Your task to perform on an android device: allow cookies in the chrome app Image 0: 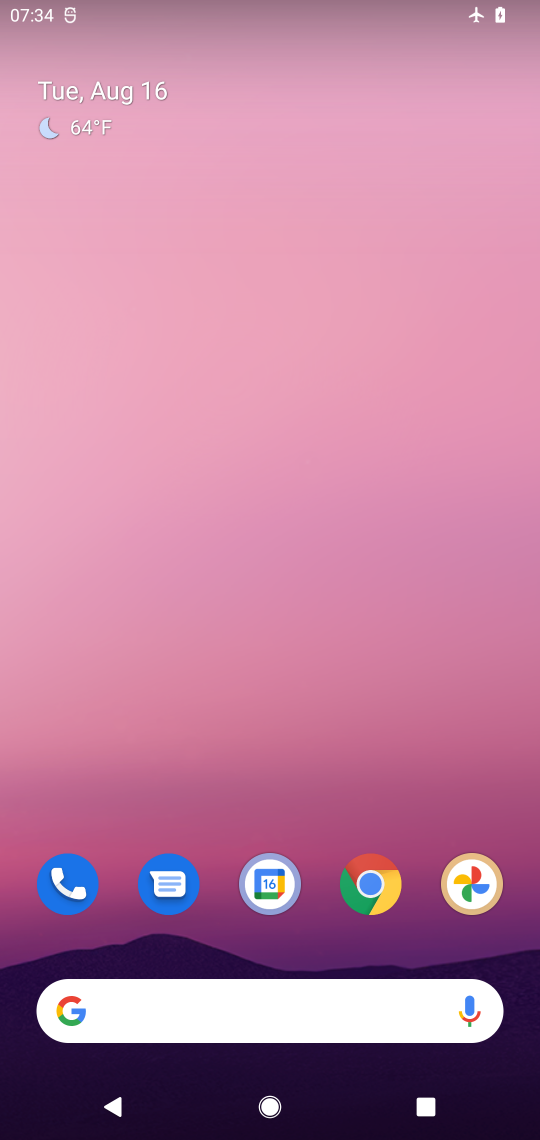
Step 0: click (379, 873)
Your task to perform on an android device: allow cookies in the chrome app Image 1: 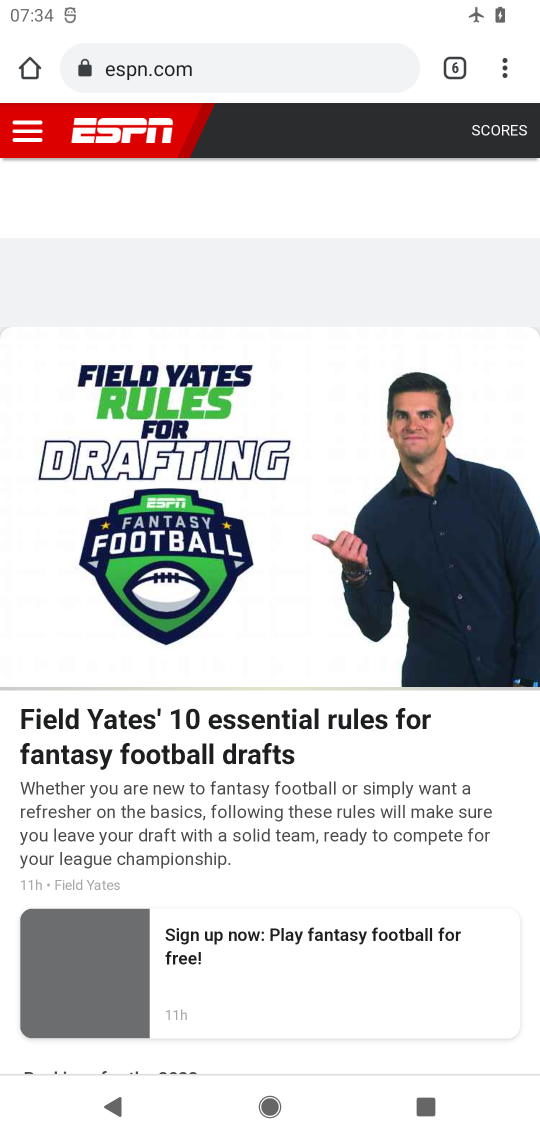
Step 1: drag from (500, 56) to (358, 775)
Your task to perform on an android device: allow cookies in the chrome app Image 2: 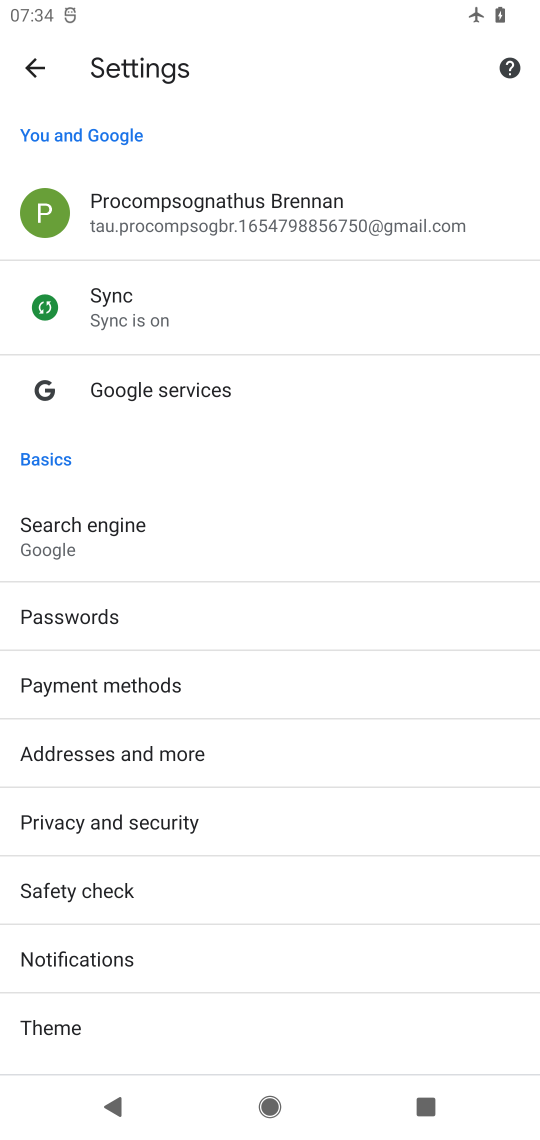
Step 2: drag from (161, 1021) to (214, 267)
Your task to perform on an android device: allow cookies in the chrome app Image 3: 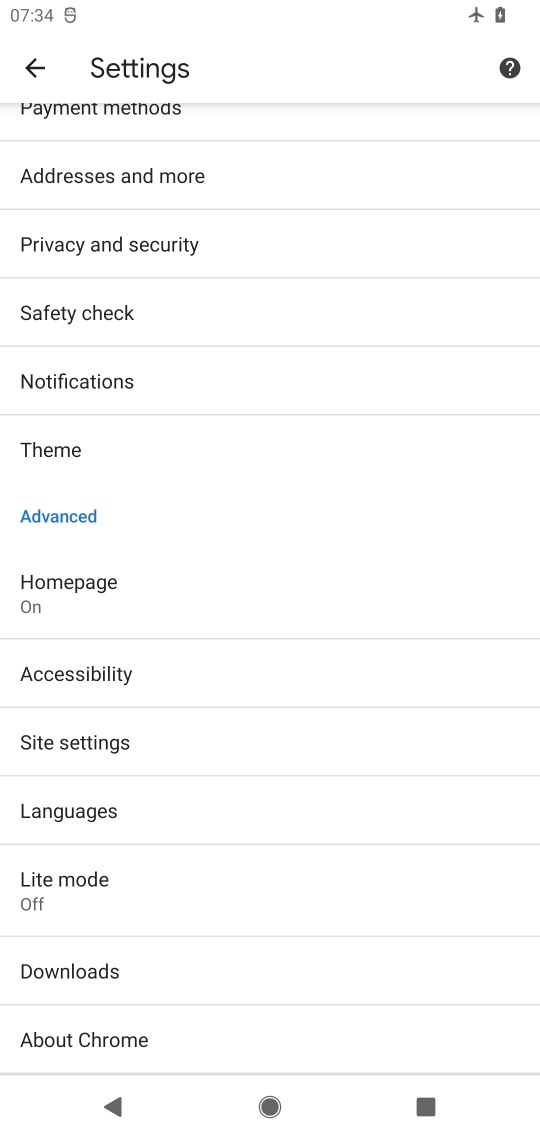
Step 3: click (86, 735)
Your task to perform on an android device: allow cookies in the chrome app Image 4: 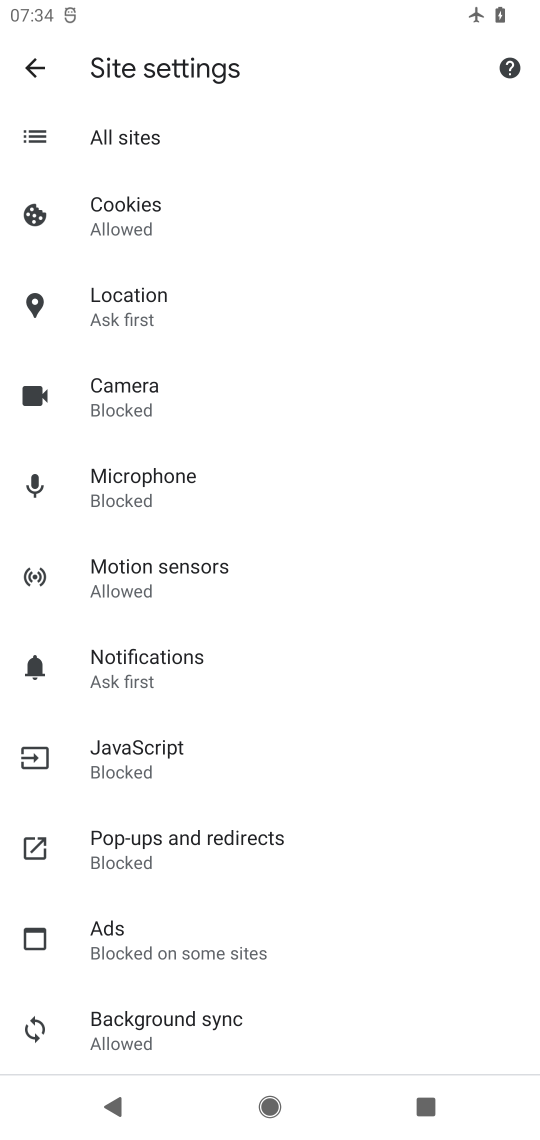
Step 4: click (177, 213)
Your task to perform on an android device: allow cookies in the chrome app Image 5: 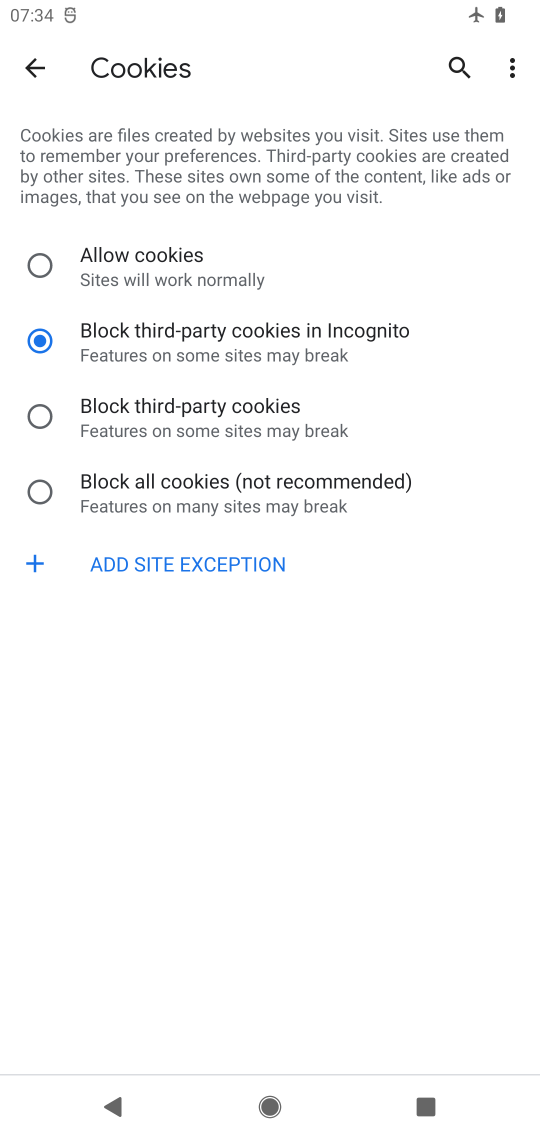
Step 5: click (139, 260)
Your task to perform on an android device: allow cookies in the chrome app Image 6: 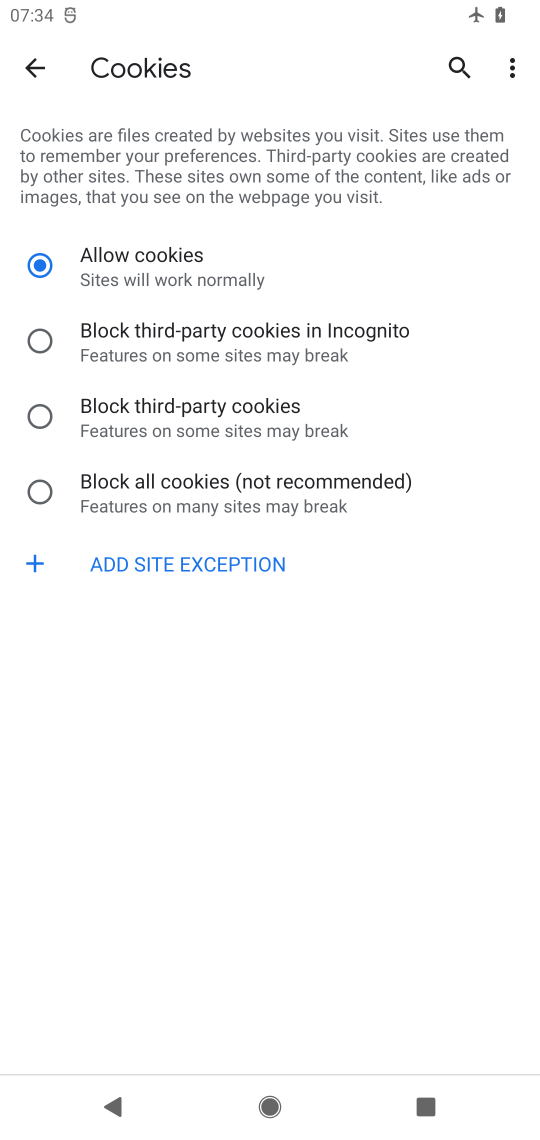
Step 6: task complete